Your task to perform on an android device: Open accessibility settings Image 0: 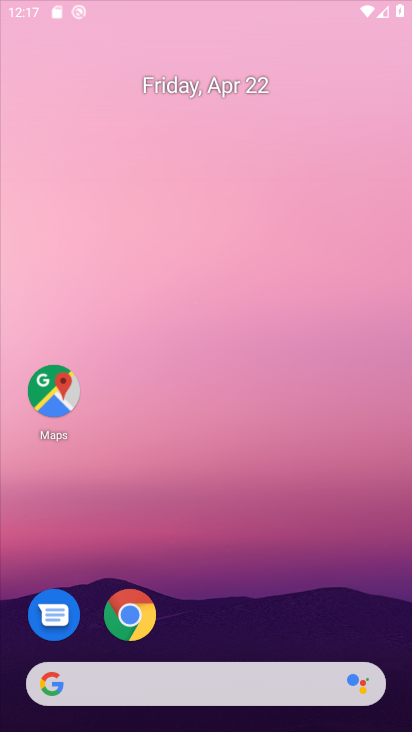
Step 0: click (325, 446)
Your task to perform on an android device: Open accessibility settings Image 1: 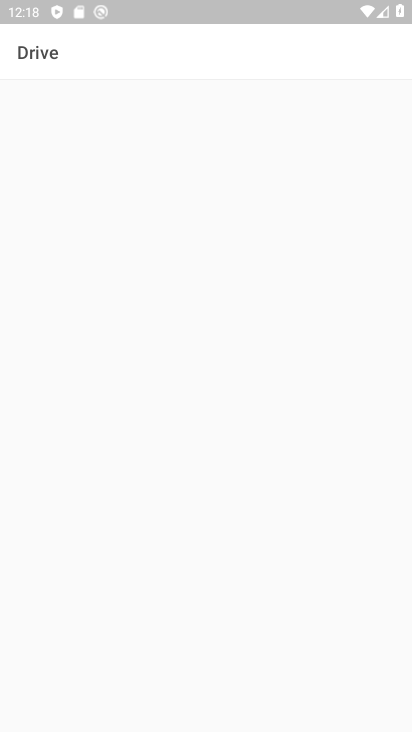
Step 1: drag from (299, 4) to (319, 469)
Your task to perform on an android device: Open accessibility settings Image 2: 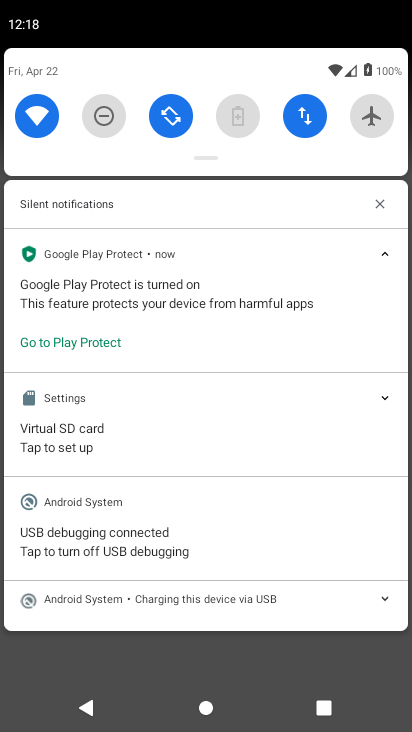
Step 2: drag from (288, 237) to (345, 547)
Your task to perform on an android device: Open accessibility settings Image 3: 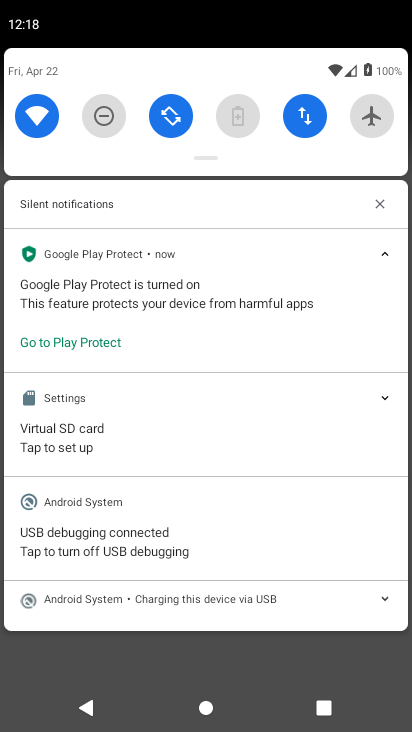
Step 3: press home button
Your task to perform on an android device: Open accessibility settings Image 4: 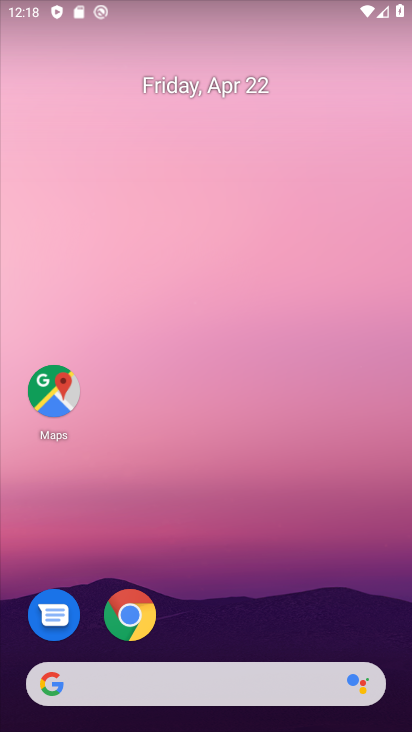
Step 4: drag from (238, 716) to (208, 73)
Your task to perform on an android device: Open accessibility settings Image 5: 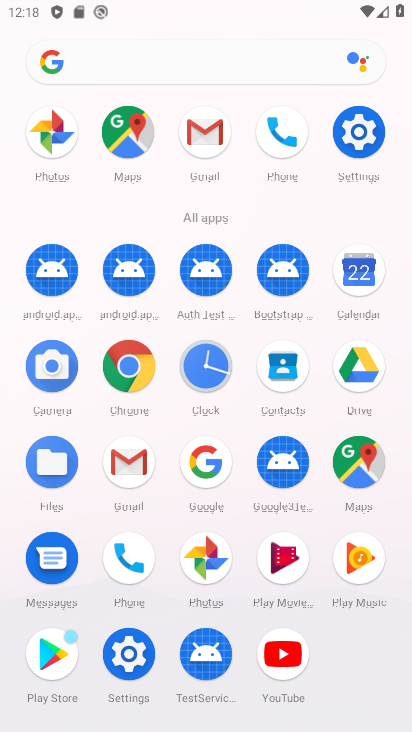
Step 5: click (361, 130)
Your task to perform on an android device: Open accessibility settings Image 6: 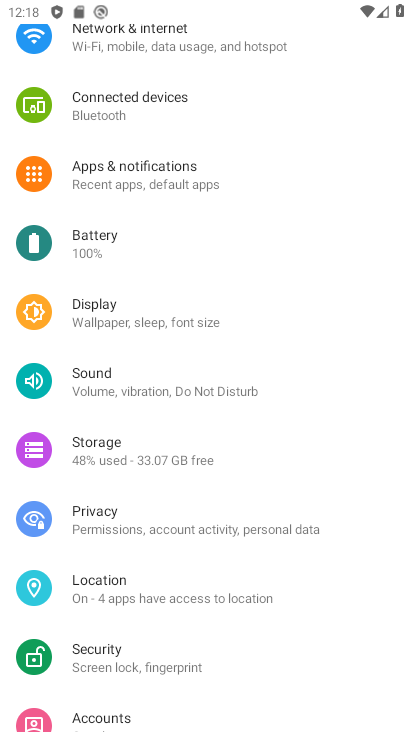
Step 6: drag from (284, 693) to (300, 112)
Your task to perform on an android device: Open accessibility settings Image 7: 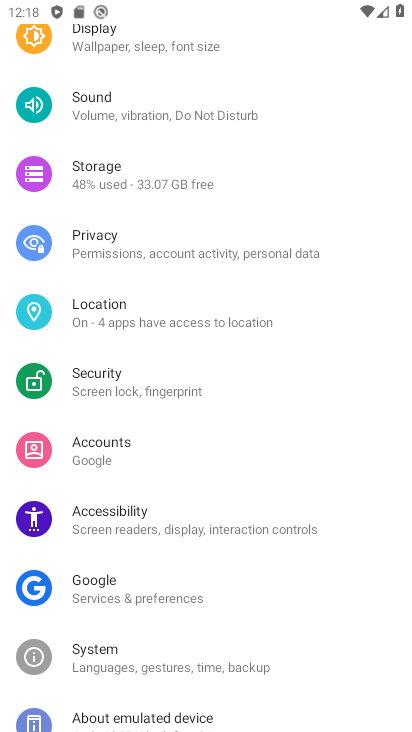
Step 7: click (206, 529)
Your task to perform on an android device: Open accessibility settings Image 8: 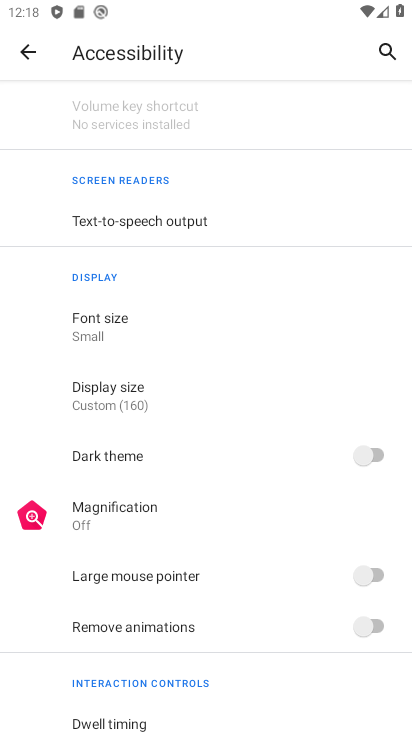
Step 8: task complete